Your task to perform on an android device: change alarm snooze length Image 0: 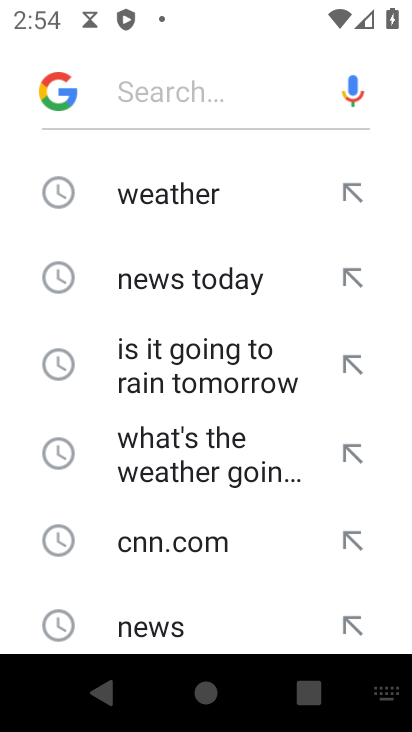
Step 0: press back button
Your task to perform on an android device: change alarm snooze length Image 1: 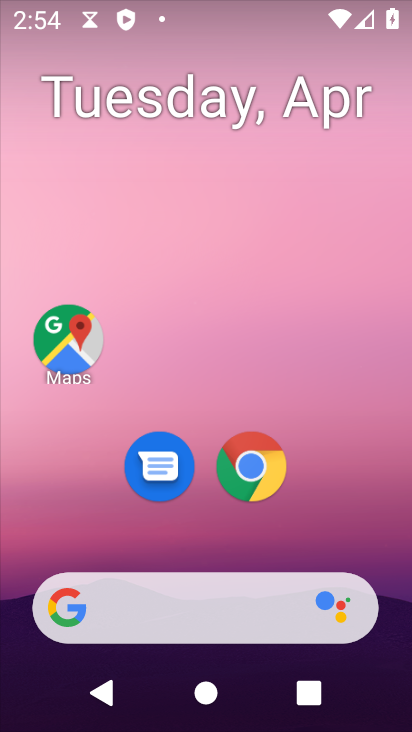
Step 1: drag from (305, 493) to (205, 68)
Your task to perform on an android device: change alarm snooze length Image 2: 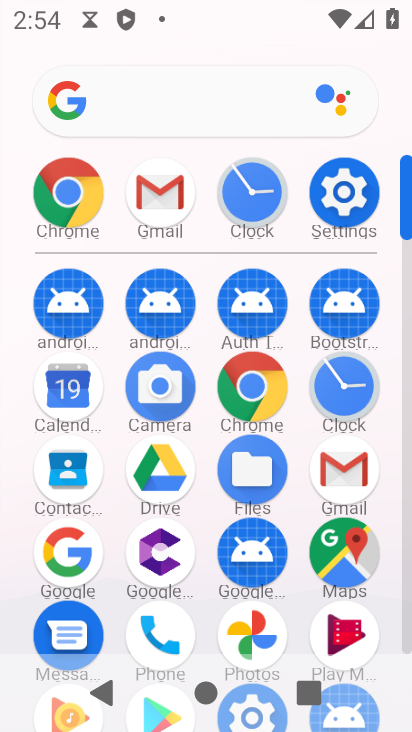
Step 2: drag from (6, 517) to (4, 266)
Your task to perform on an android device: change alarm snooze length Image 3: 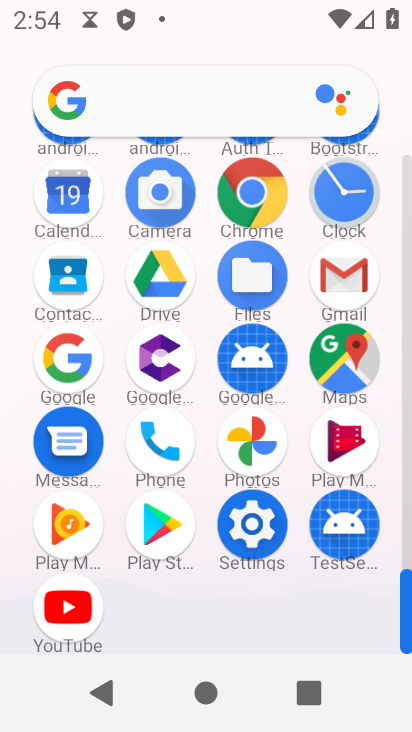
Step 3: drag from (4, 557) to (14, 357)
Your task to perform on an android device: change alarm snooze length Image 4: 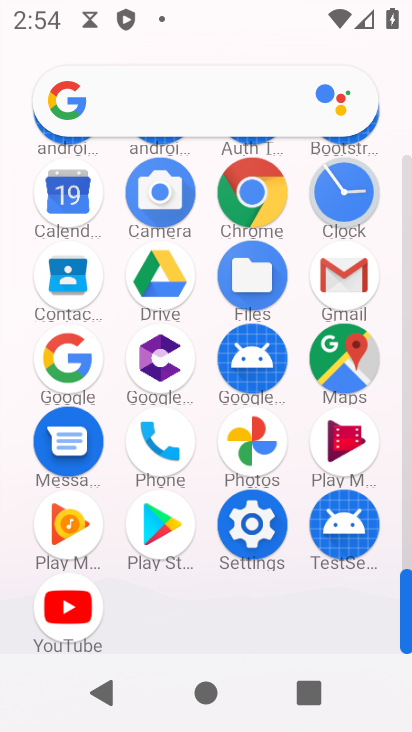
Step 4: drag from (22, 212) to (9, 400)
Your task to perform on an android device: change alarm snooze length Image 5: 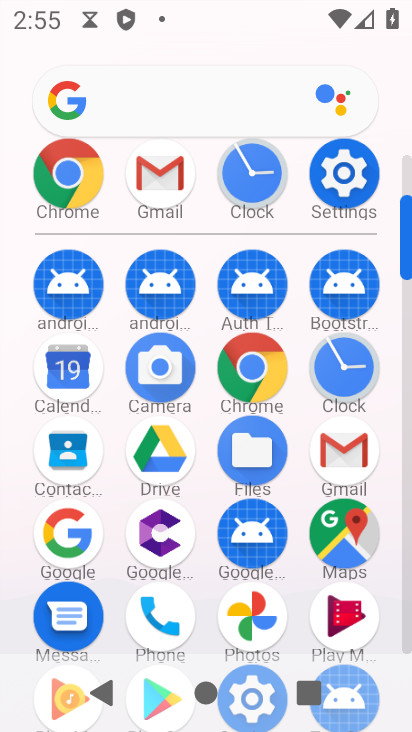
Step 5: click (349, 363)
Your task to perform on an android device: change alarm snooze length Image 6: 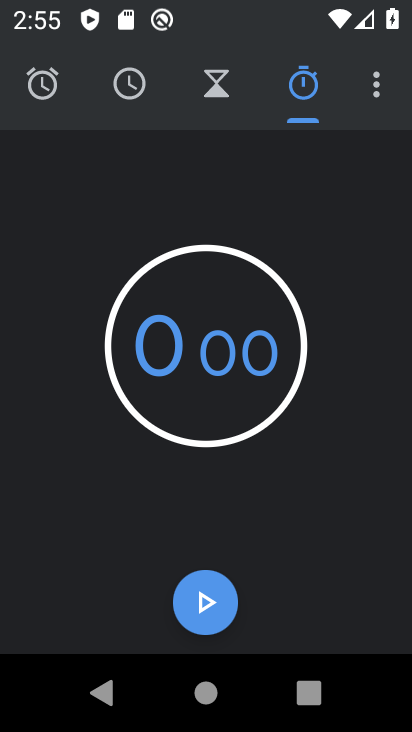
Step 6: click (36, 91)
Your task to perform on an android device: change alarm snooze length Image 7: 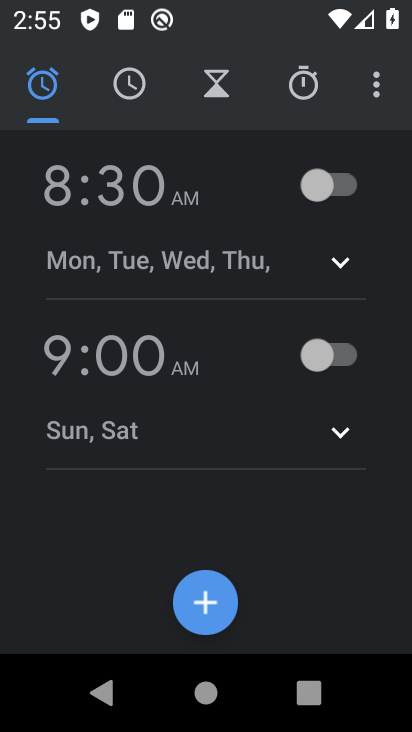
Step 7: click (370, 76)
Your task to perform on an android device: change alarm snooze length Image 8: 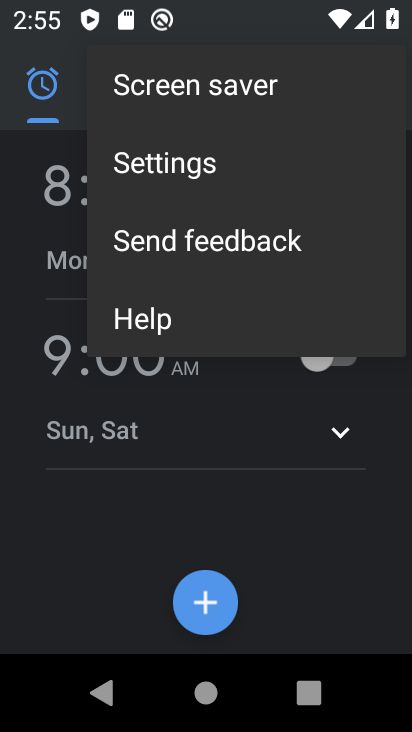
Step 8: click (225, 152)
Your task to perform on an android device: change alarm snooze length Image 9: 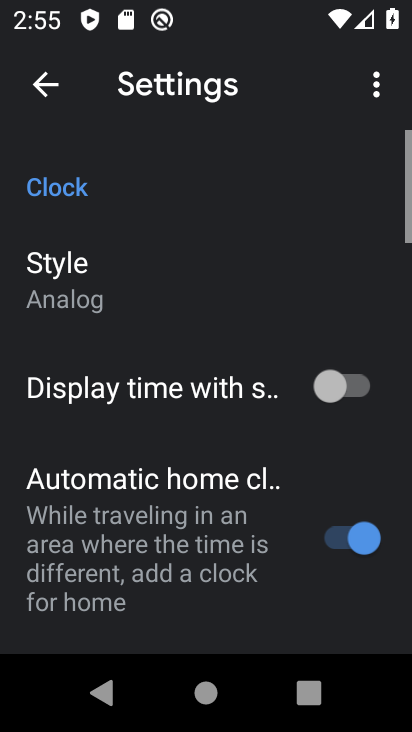
Step 9: drag from (150, 469) to (180, 180)
Your task to perform on an android device: change alarm snooze length Image 10: 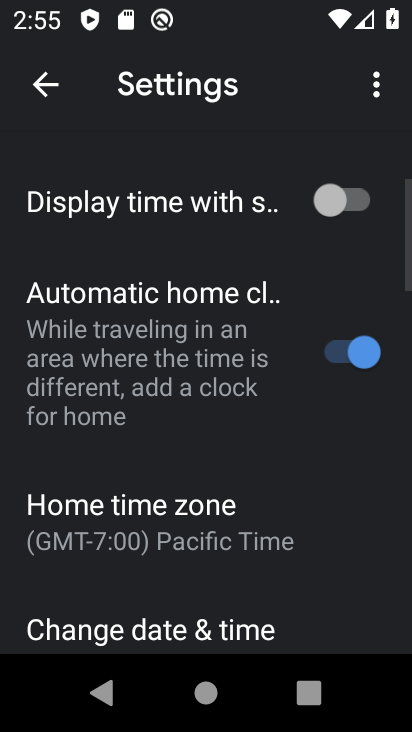
Step 10: drag from (181, 495) to (194, 161)
Your task to perform on an android device: change alarm snooze length Image 11: 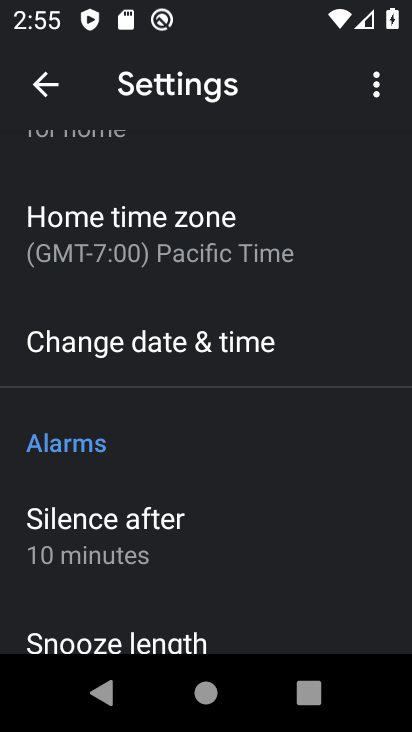
Step 11: drag from (129, 496) to (150, 213)
Your task to perform on an android device: change alarm snooze length Image 12: 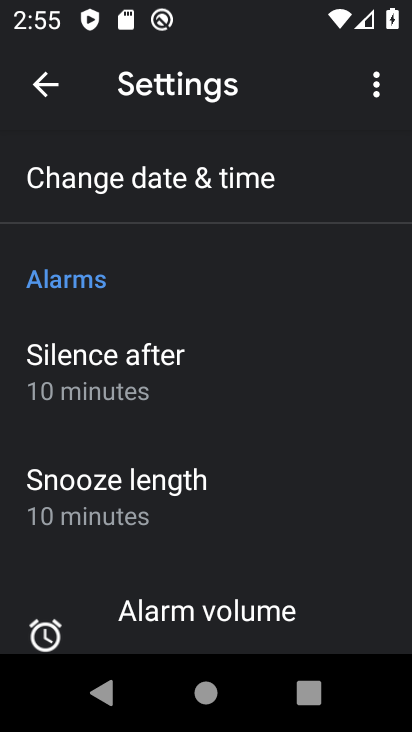
Step 12: click (156, 501)
Your task to perform on an android device: change alarm snooze length Image 13: 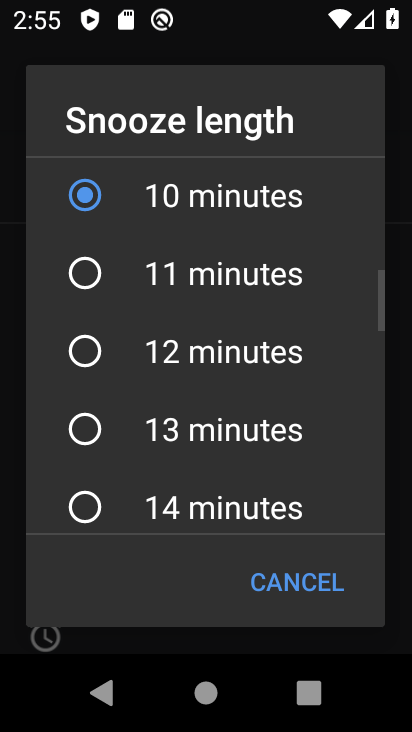
Step 13: click (172, 349)
Your task to perform on an android device: change alarm snooze length Image 14: 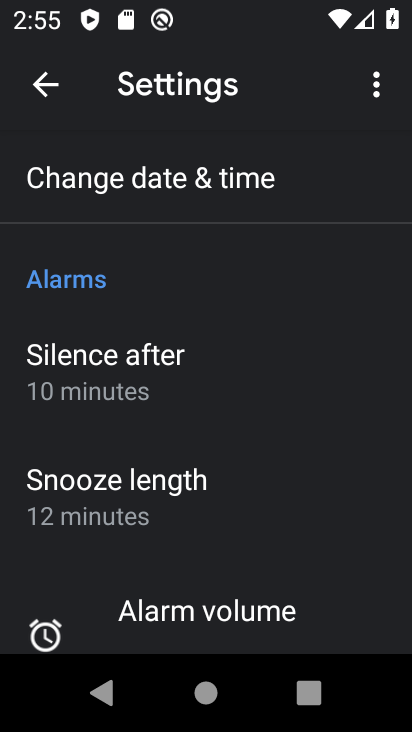
Step 14: task complete